Your task to perform on an android device: Set the phone to "Do not disturb". Image 0: 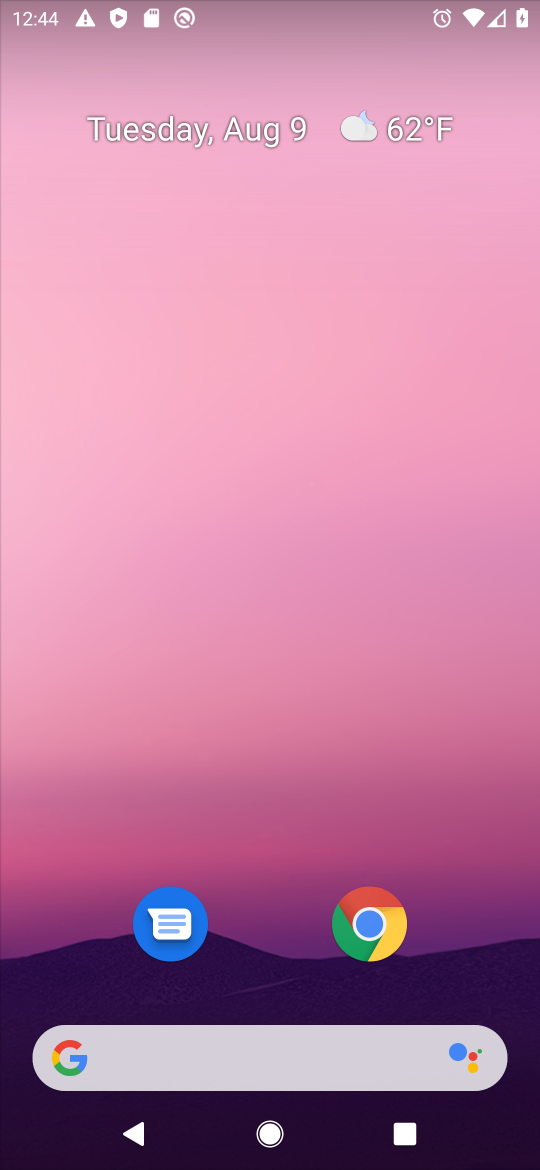
Step 0: drag from (269, 1017) to (249, 160)
Your task to perform on an android device: Set the phone to "Do not disturb". Image 1: 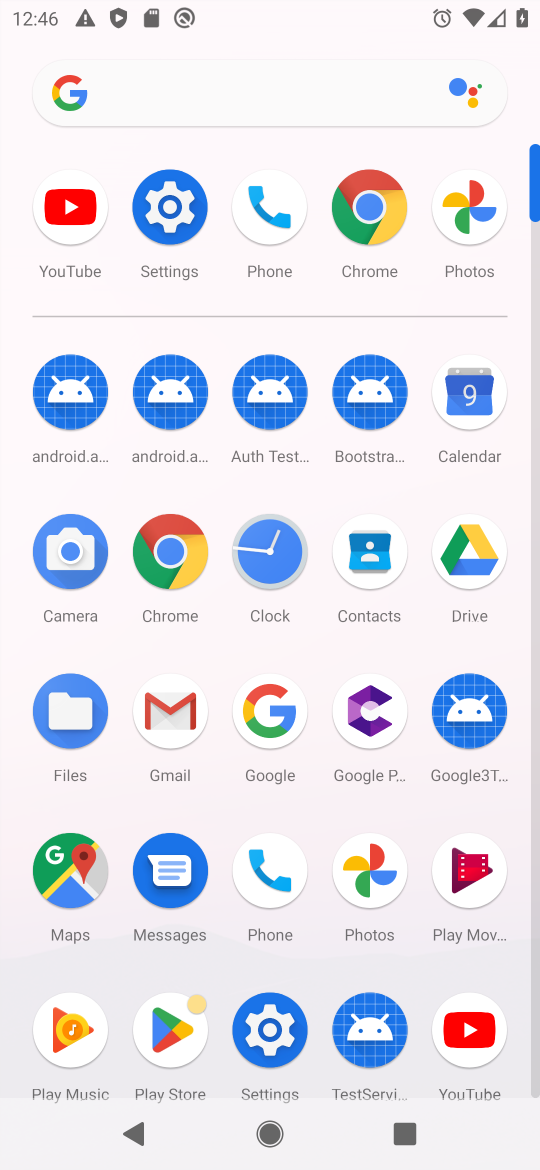
Step 1: task complete